Your task to perform on an android device: clear history in the chrome app Image 0: 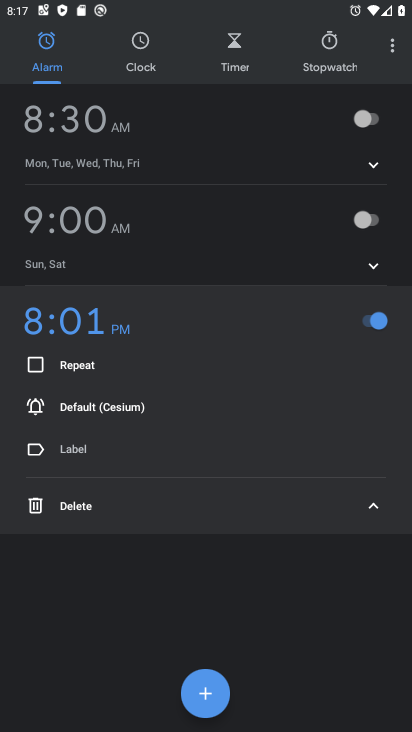
Step 0: press home button
Your task to perform on an android device: clear history in the chrome app Image 1: 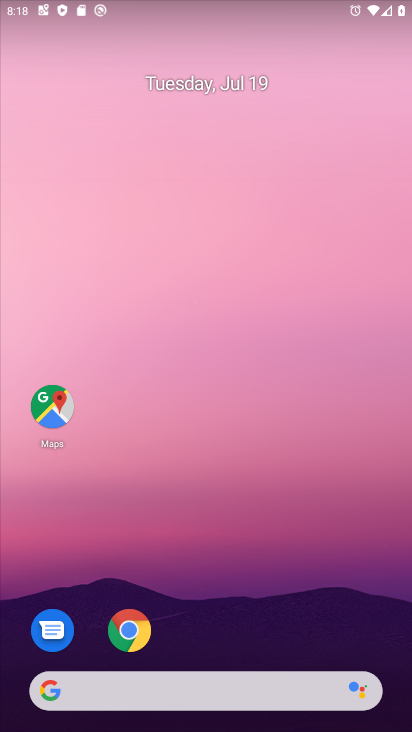
Step 1: drag from (285, 614) to (291, 55)
Your task to perform on an android device: clear history in the chrome app Image 2: 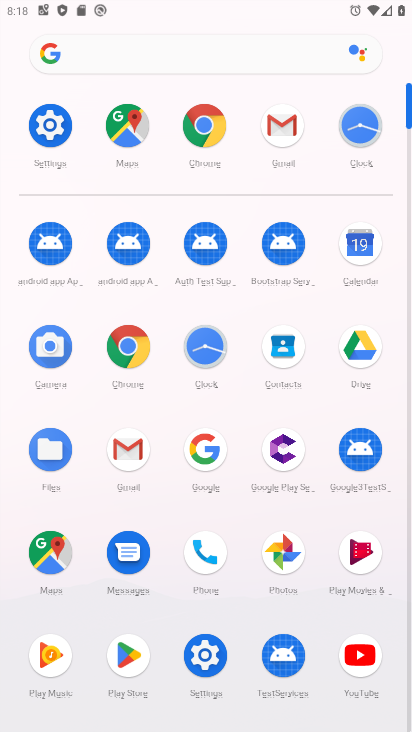
Step 2: click (182, 113)
Your task to perform on an android device: clear history in the chrome app Image 3: 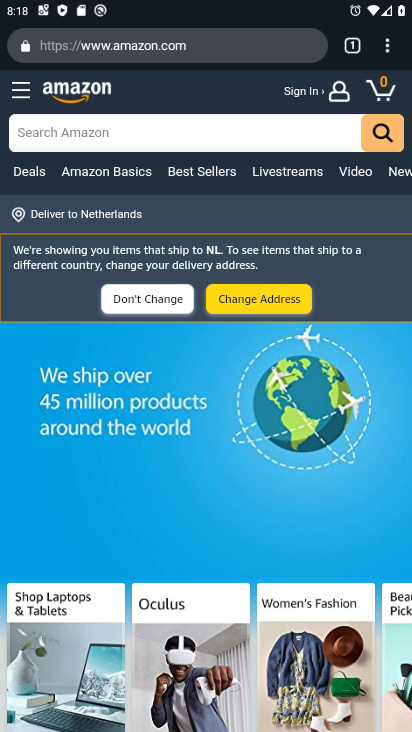
Step 3: drag from (391, 35) to (246, 256)
Your task to perform on an android device: clear history in the chrome app Image 4: 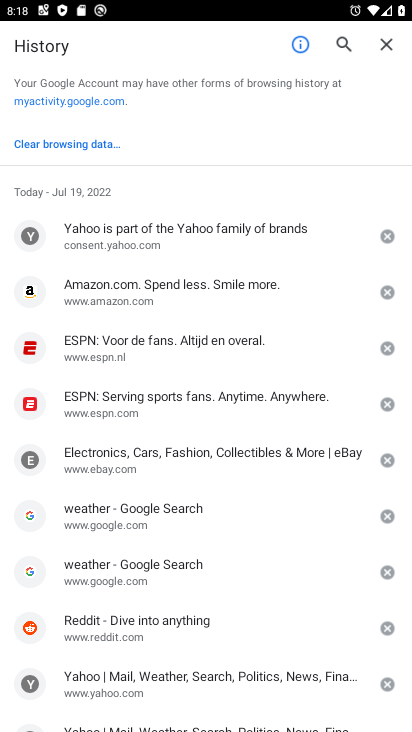
Step 4: click (91, 145)
Your task to perform on an android device: clear history in the chrome app Image 5: 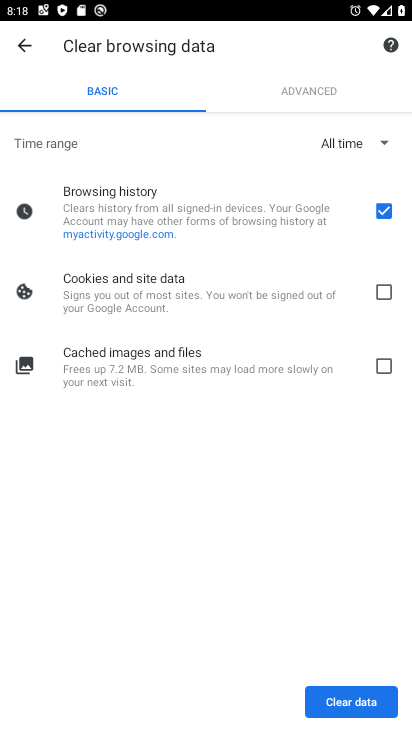
Step 5: click (355, 697)
Your task to perform on an android device: clear history in the chrome app Image 6: 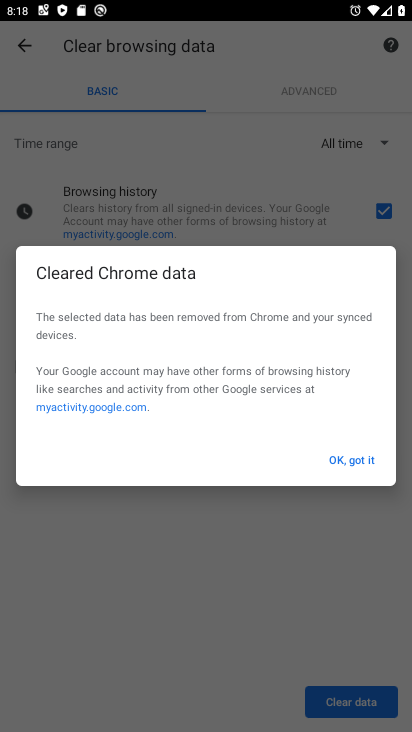
Step 6: click (347, 461)
Your task to perform on an android device: clear history in the chrome app Image 7: 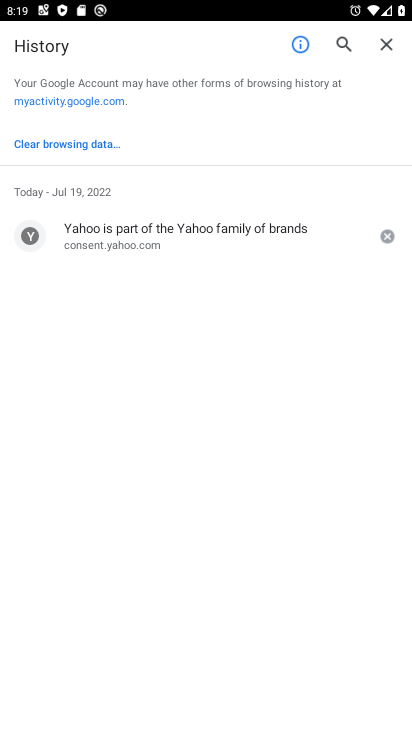
Step 7: click (60, 135)
Your task to perform on an android device: clear history in the chrome app Image 8: 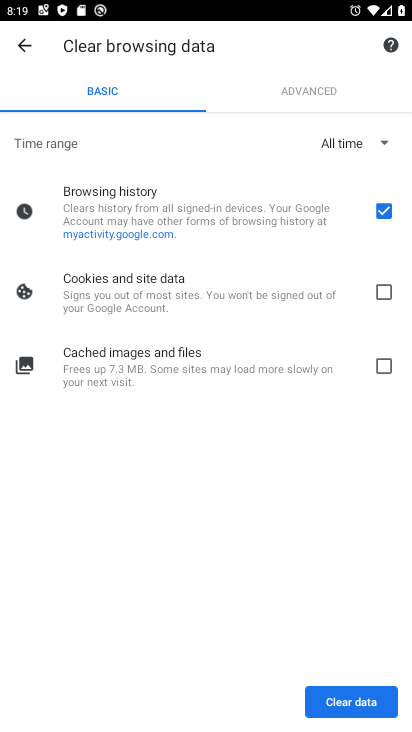
Step 8: click (352, 710)
Your task to perform on an android device: clear history in the chrome app Image 9: 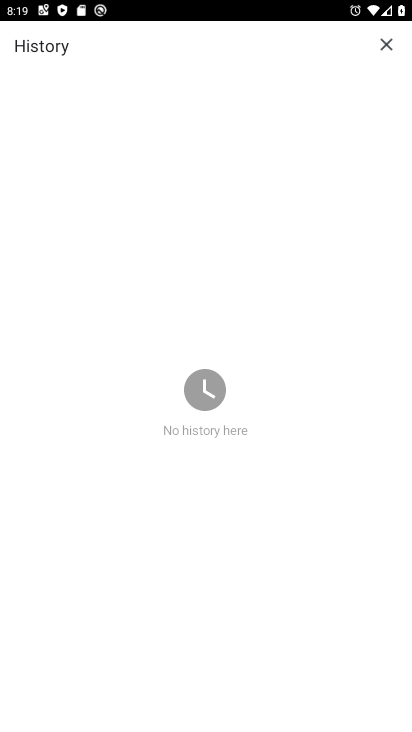
Step 9: task complete